Your task to perform on an android device: What's on my calendar tomorrow? Image 0: 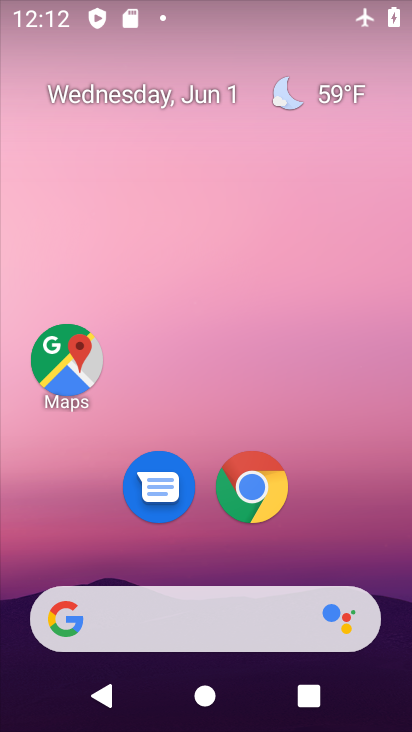
Step 0: drag from (195, 511) to (218, 36)
Your task to perform on an android device: What's on my calendar tomorrow? Image 1: 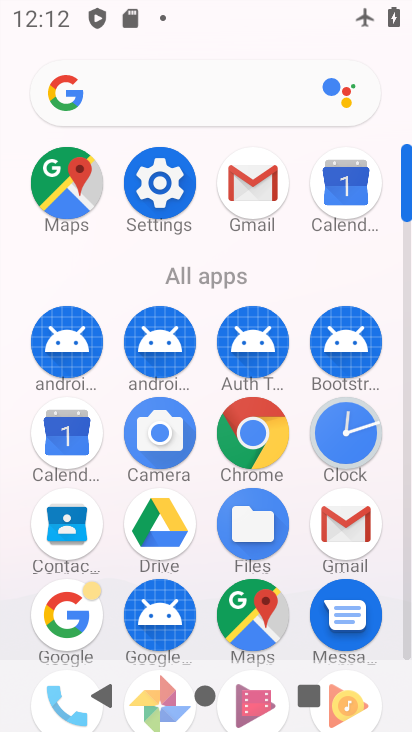
Step 1: click (56, 452)
Your task to perform on an android device: What's on my calendar tomorrow? Image 2: 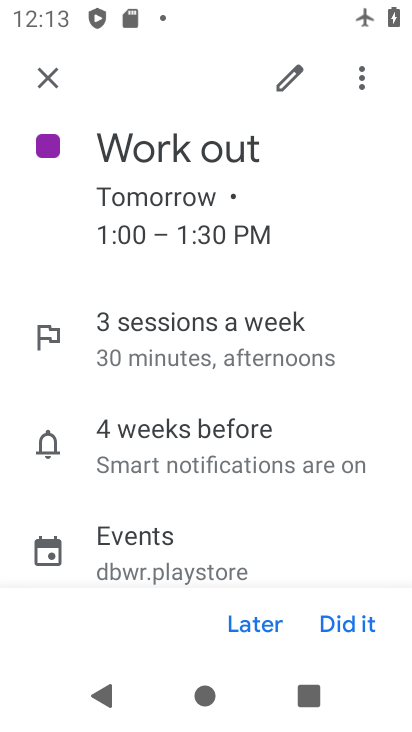
Step 2: click (55, 99)
Your task to perform on an android device: What's on my calendar tomorrow? Image 3: 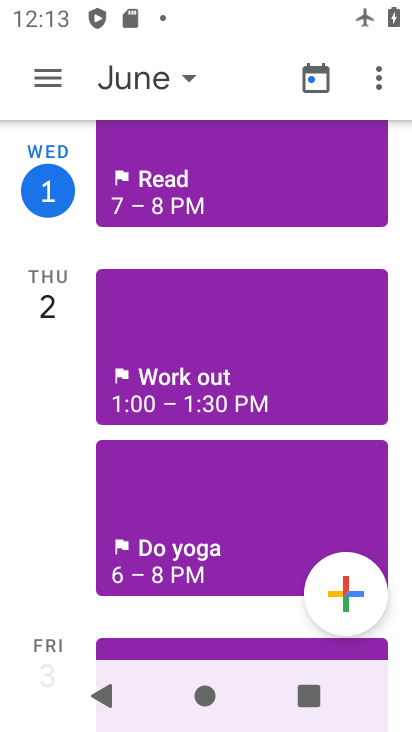
Step 3: click (47, 72)
Your task to perform on an android device: What's on my calendar tomorrow? Image 4: 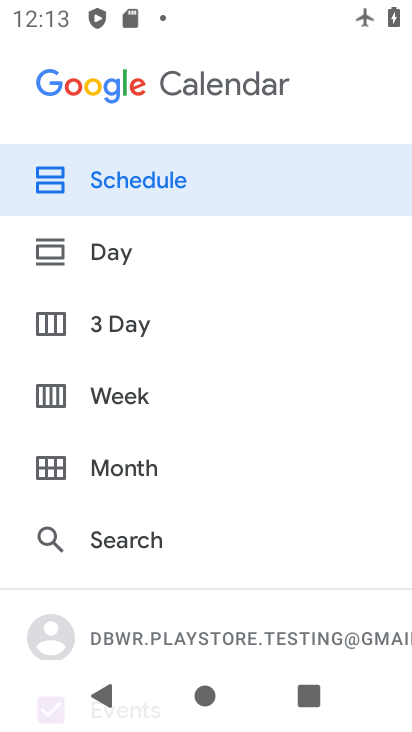
Step 4: click (158, 182)
Your task to perform on an android device: What's on my calendar tomorrow? Image 5: 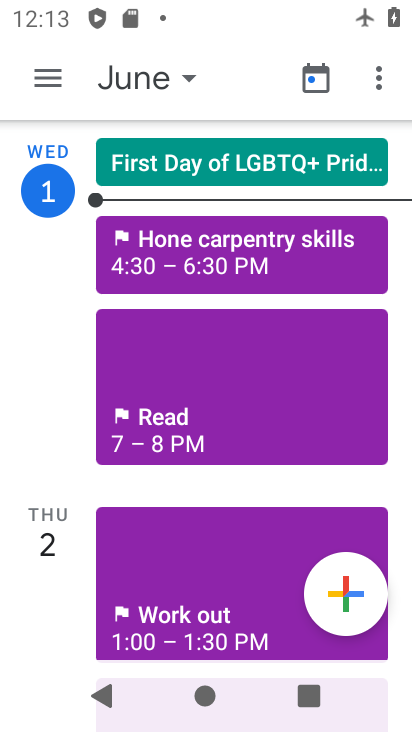
Step 5: drag from (191, 553) to (213, 195)
Your task to perform on an android device: What's on my calendar tomorrow? Image 6: 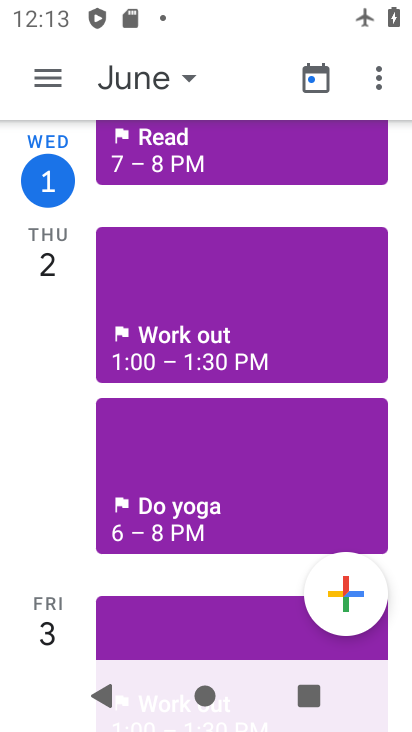
Step 6: click (161, 305)
Your task to perform on an android device: What's on my calendar tomorrow? Image 7: 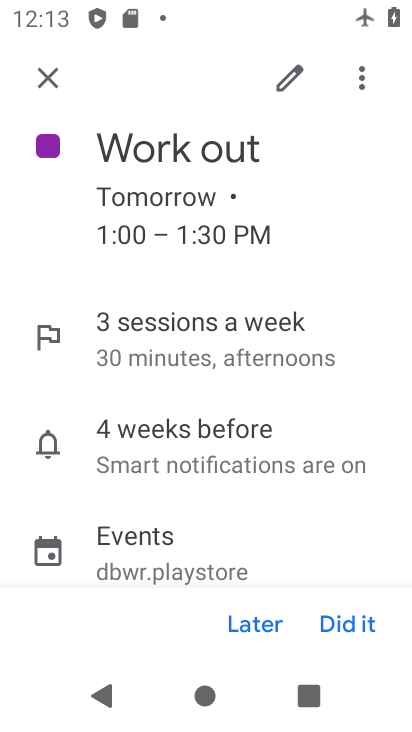
Step 7: task complete